Your task to perform on an android device: move a message to another label in the gmail app Image 0: 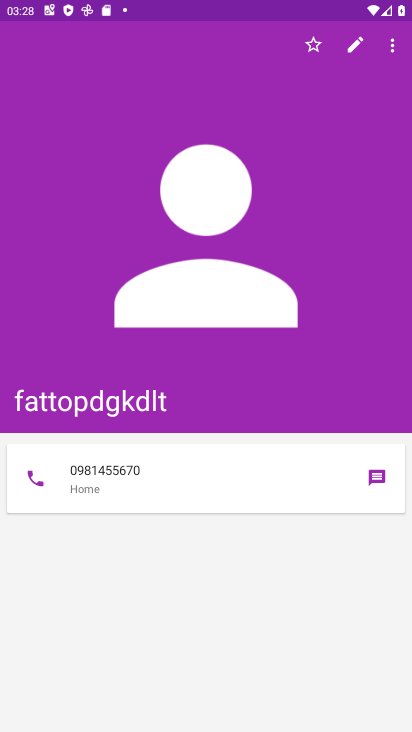
Step 0: press home button
Your task to perform on an android device: move a message to another label in the gmail app Image 1: 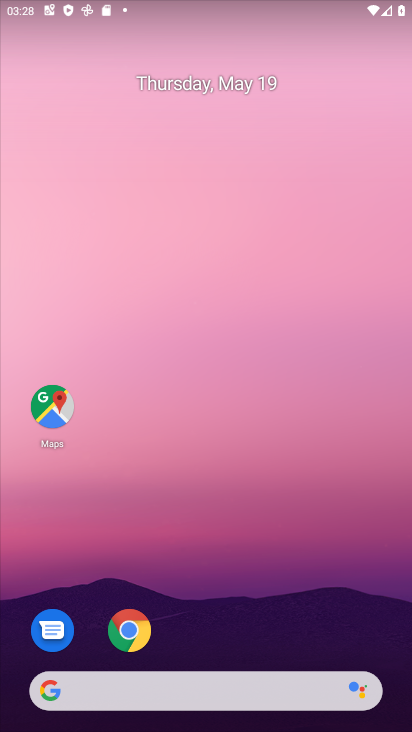
Step 1: drag from (349, 663) to (322, 127)
Your task to perform on an android device: move a message to another label in the gmail app Image 2: 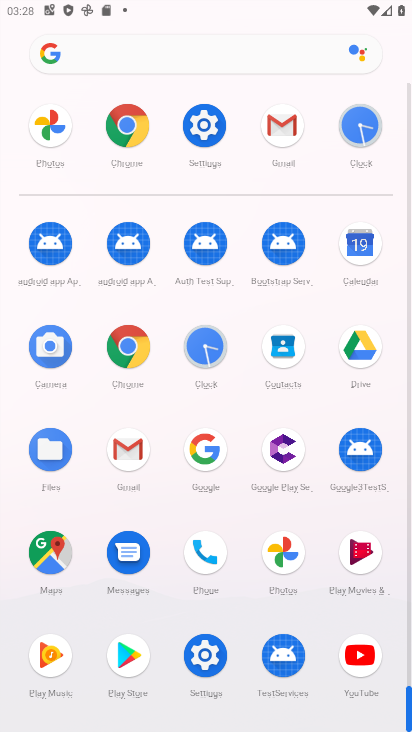
Step 2: click (125, 448)
Your task to perform on an android device: move a message to another label in the gmail app Image 3: 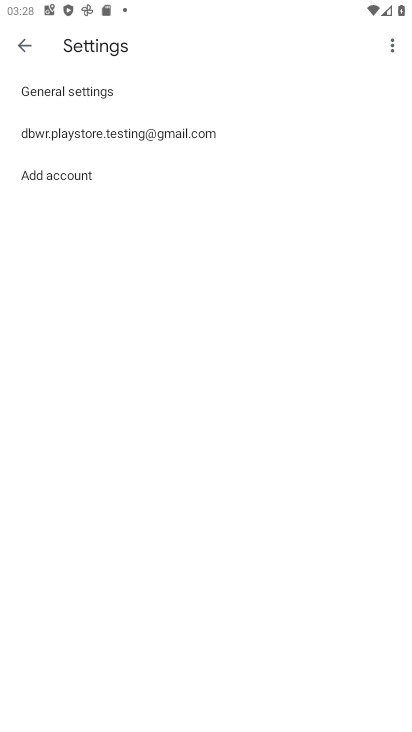
Step 3: press back button
Your task to perform on an android device: move a message to another label in the gmail app Image 4: 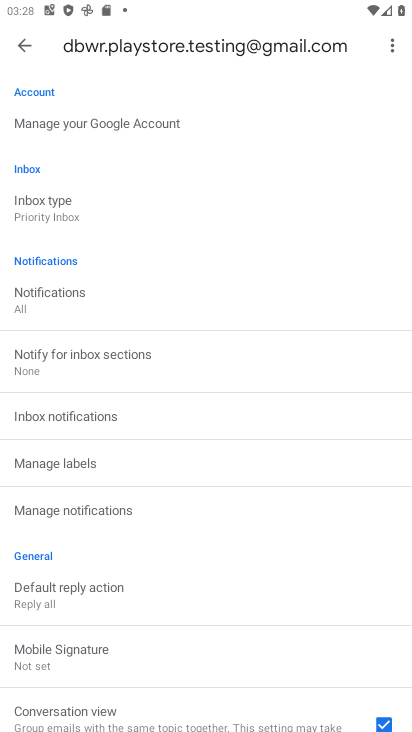
Step 4: press back button
Your task to perform on an android device: move a message to another label in the gmail app Image 5: 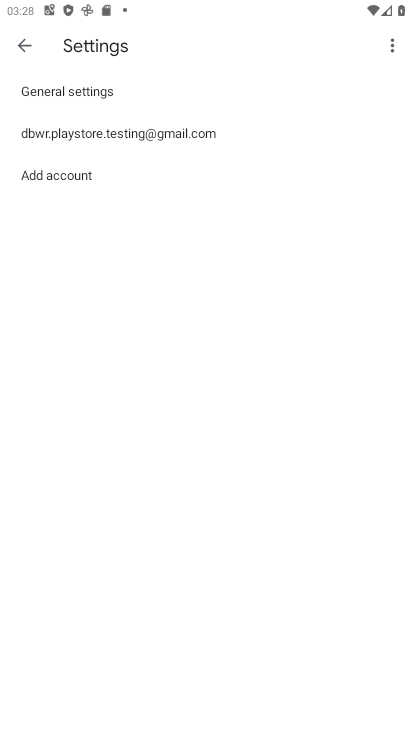
Step 5: press back button
Your task to perform on an android device: move a message to another label in the gmail app Image 6: 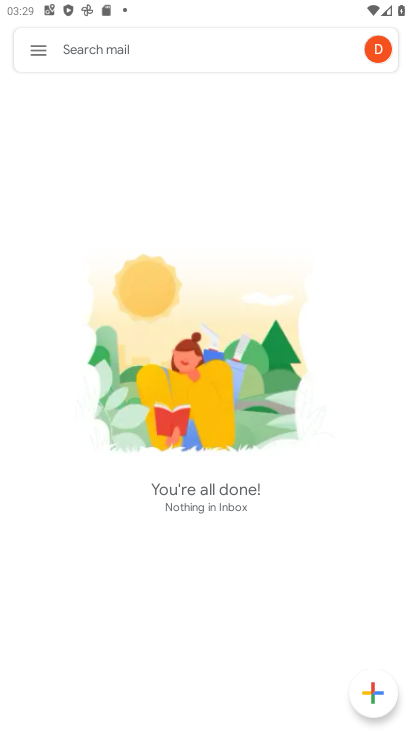
Step 6: click (37, 48)
Your task to perform on an android device: move a message to another label in the gmail app Image 7: 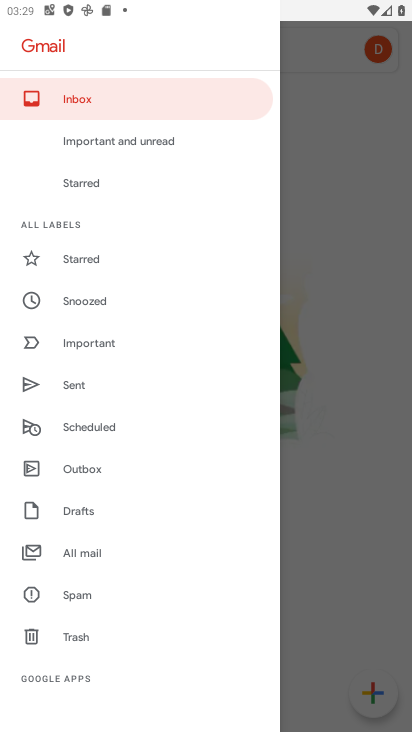
Step 7: click (82, 553)
Your task to perform on an android device: move a message to another label in the gmail app Image 8: 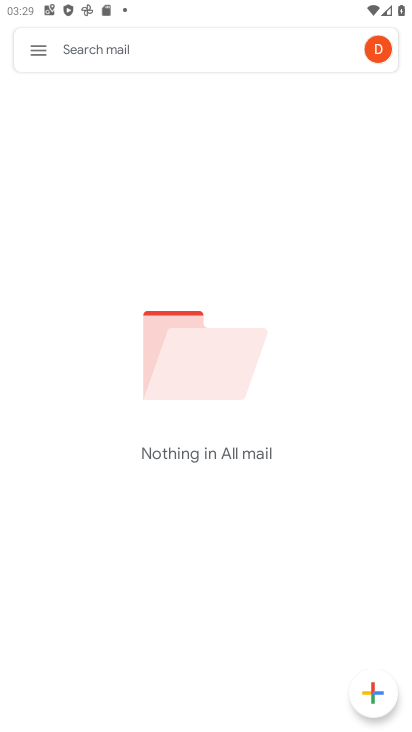
Step 8: task complete